Your task to perform on an android device: Clear the cart on walmart.com. Search for logitech g pro on walmart.com, select the first entry, and add it to the cart. Image 0: 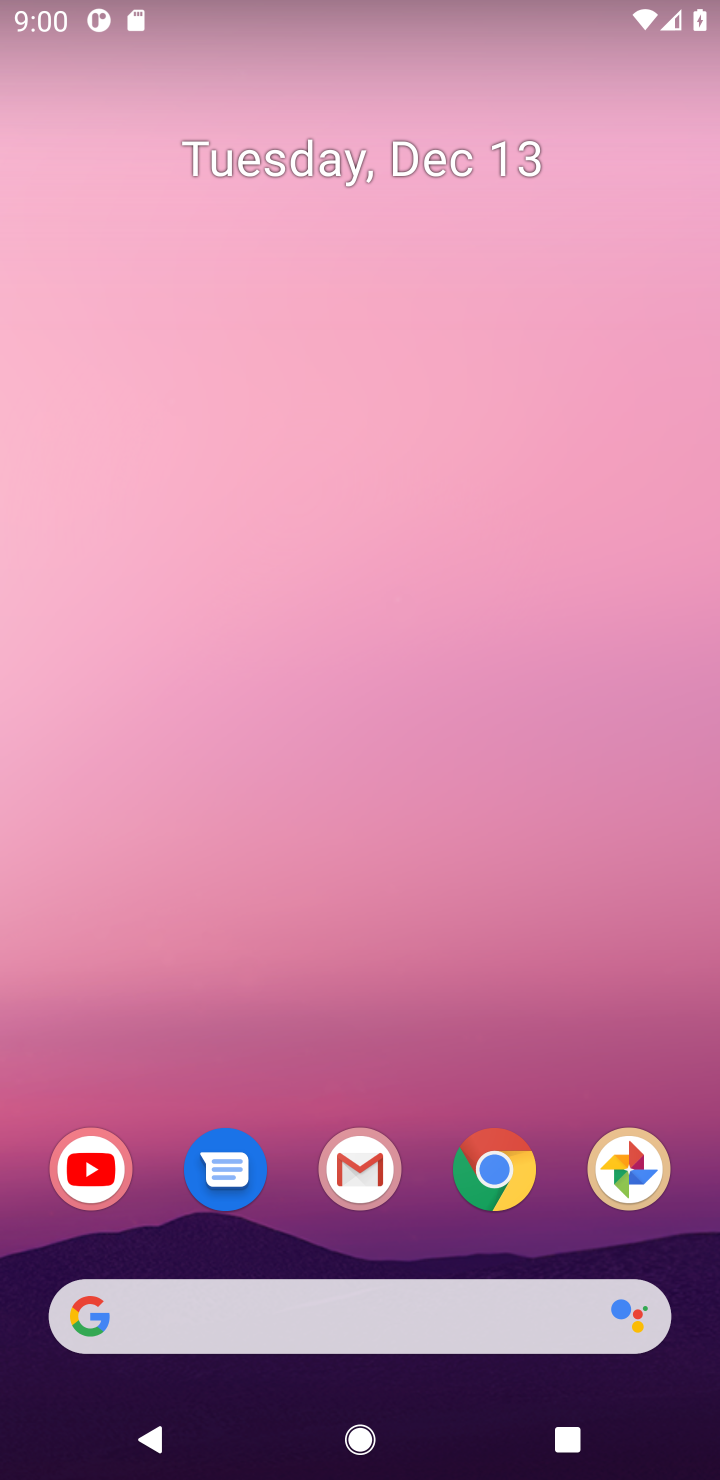
Step 0: click (517, 1144)
Your task to perform on an android device: Clear the cart on walmart.com. Search for logitech g pro on walmart.com, select the first entry, and add it to the cart. Image 1: 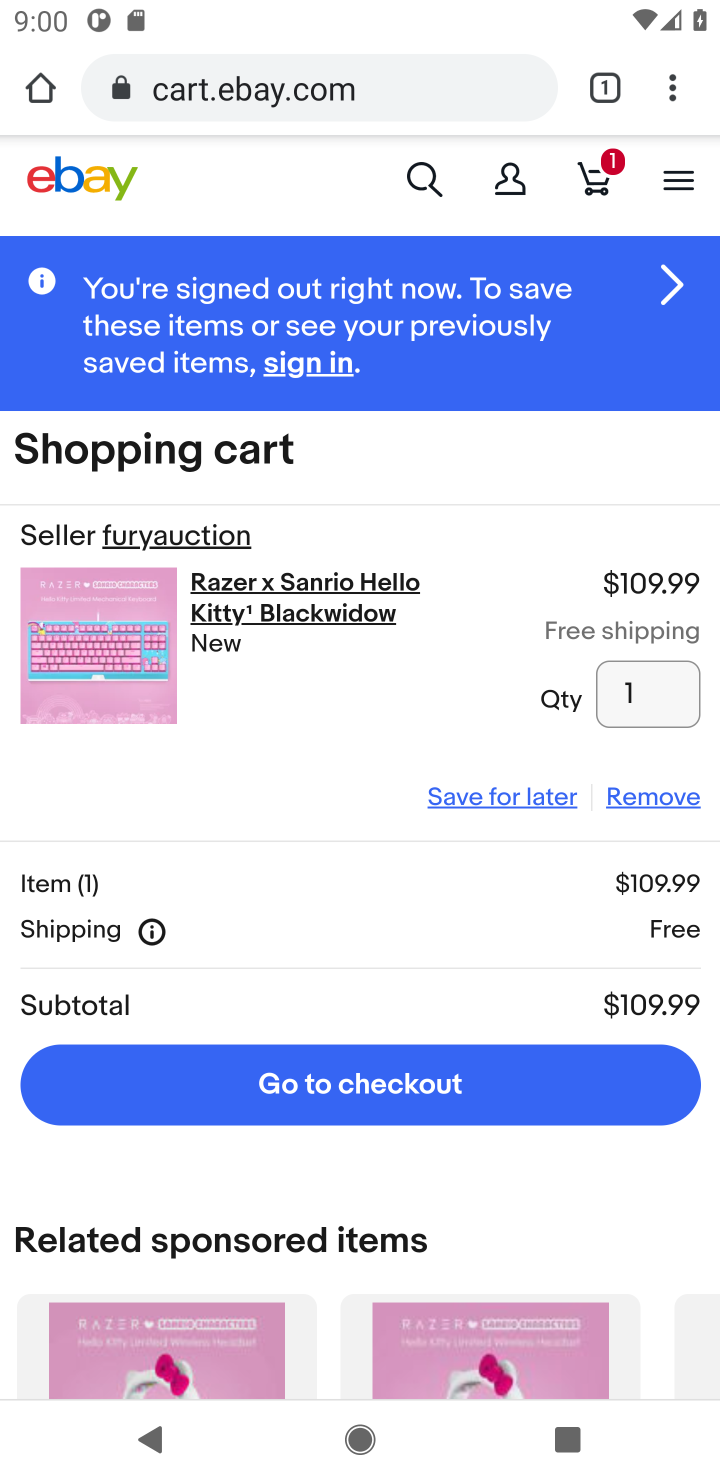
Step 1: click (430, 212)
Your task to perform on an android device: Clear the cart on walmart.com. Search for logitech g pro on walmart.com, select the first entry, and add it to the cart. Image 2: 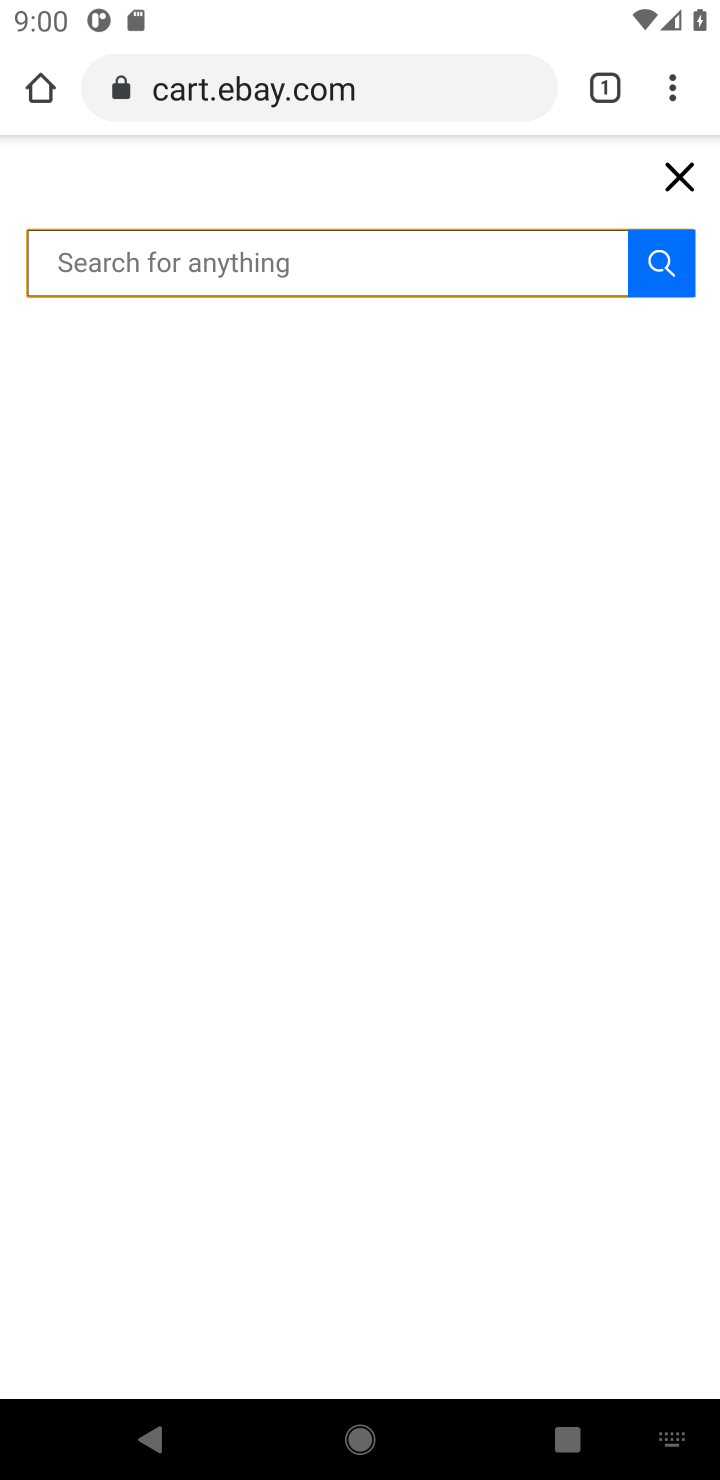
Step 2: type "walmart"
Your task to perform on an android device: Clear the cart on walmart.com. Search for logitech g pro on walmart.com, select the first entry, and add it to the cart. Image 3: 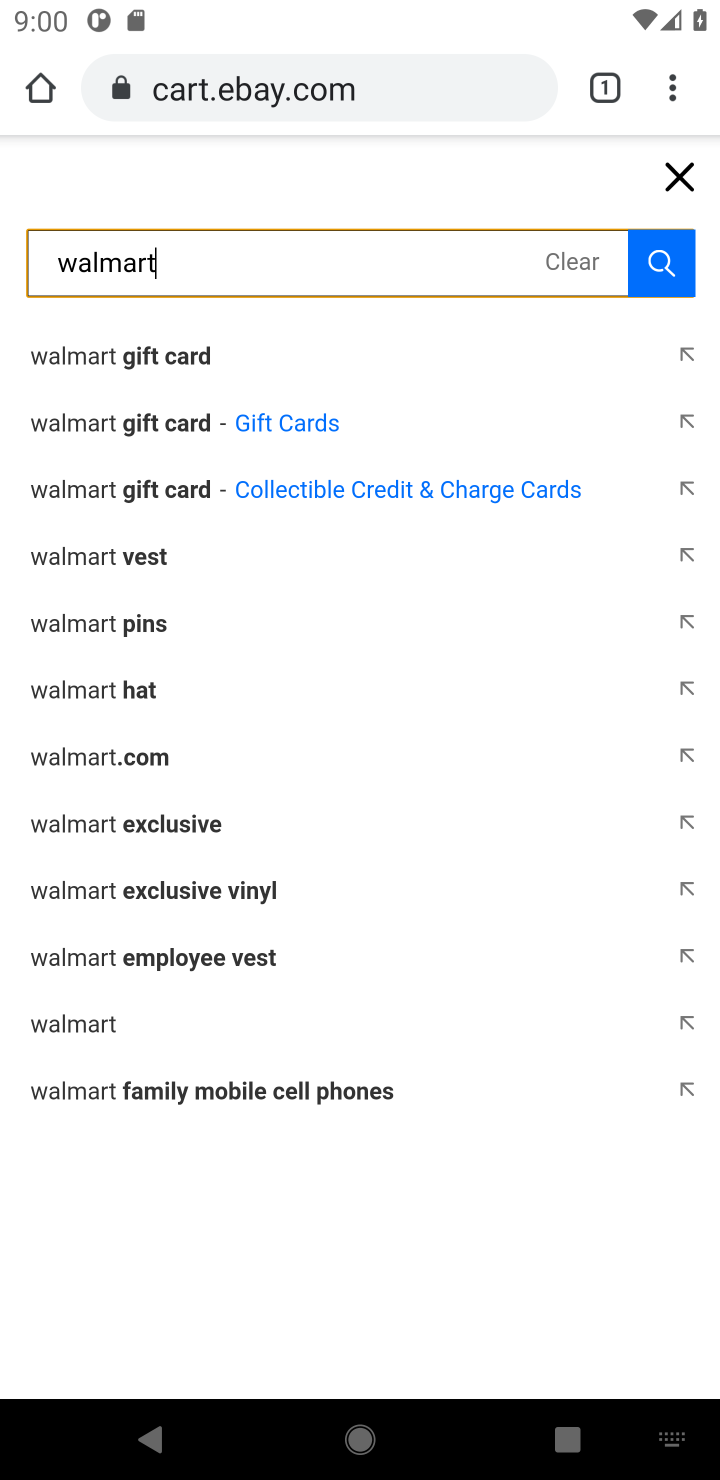
Step 3: click (454, 89)
Your task to perform on an android device: Clear the cart on walmart.com. Search for logitech g pro on walmart.com, select the first entry, and add it to the cart. Image 4: 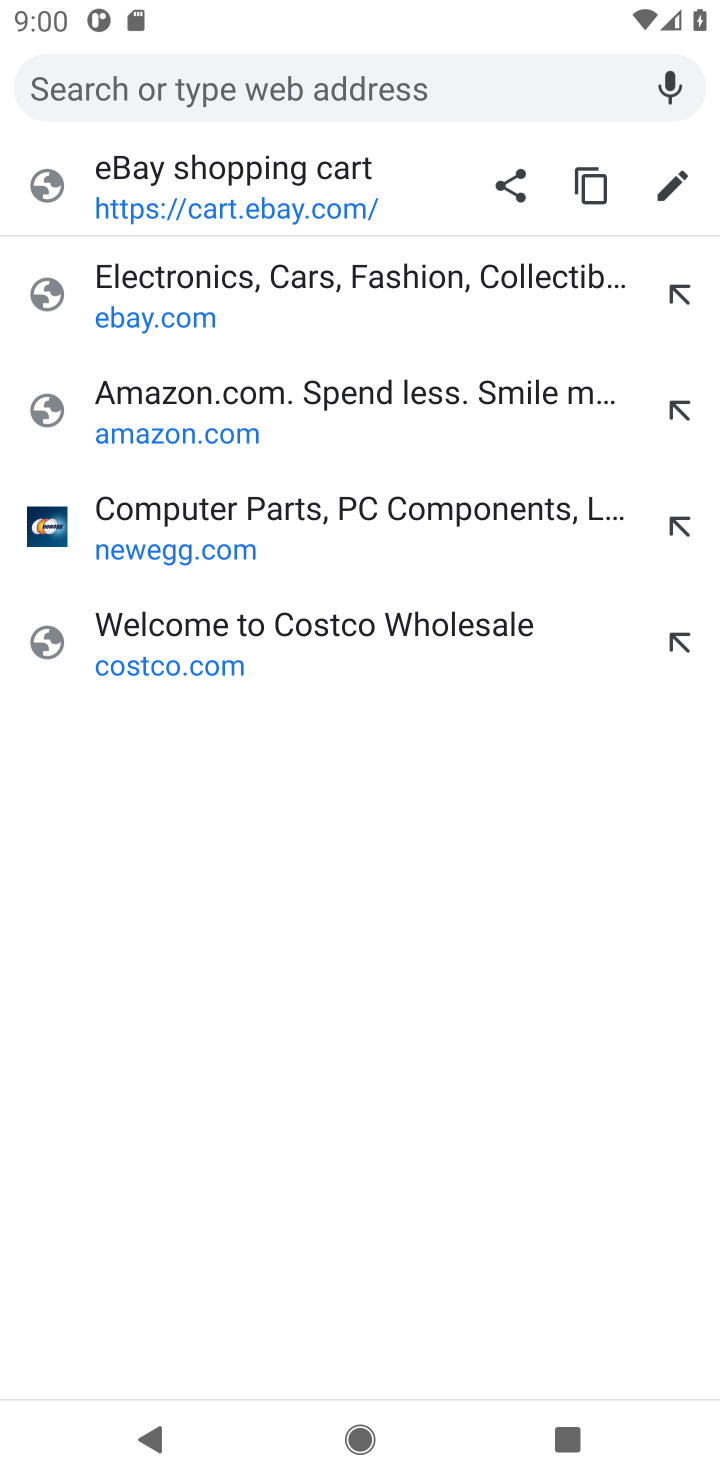
Step 4: type "walmart"
Your task to perform on an android device: Clear the cart on walmart.com. Search for logitech g pro on walmart.com, select the first entry, and add it to the cart. Image 5: 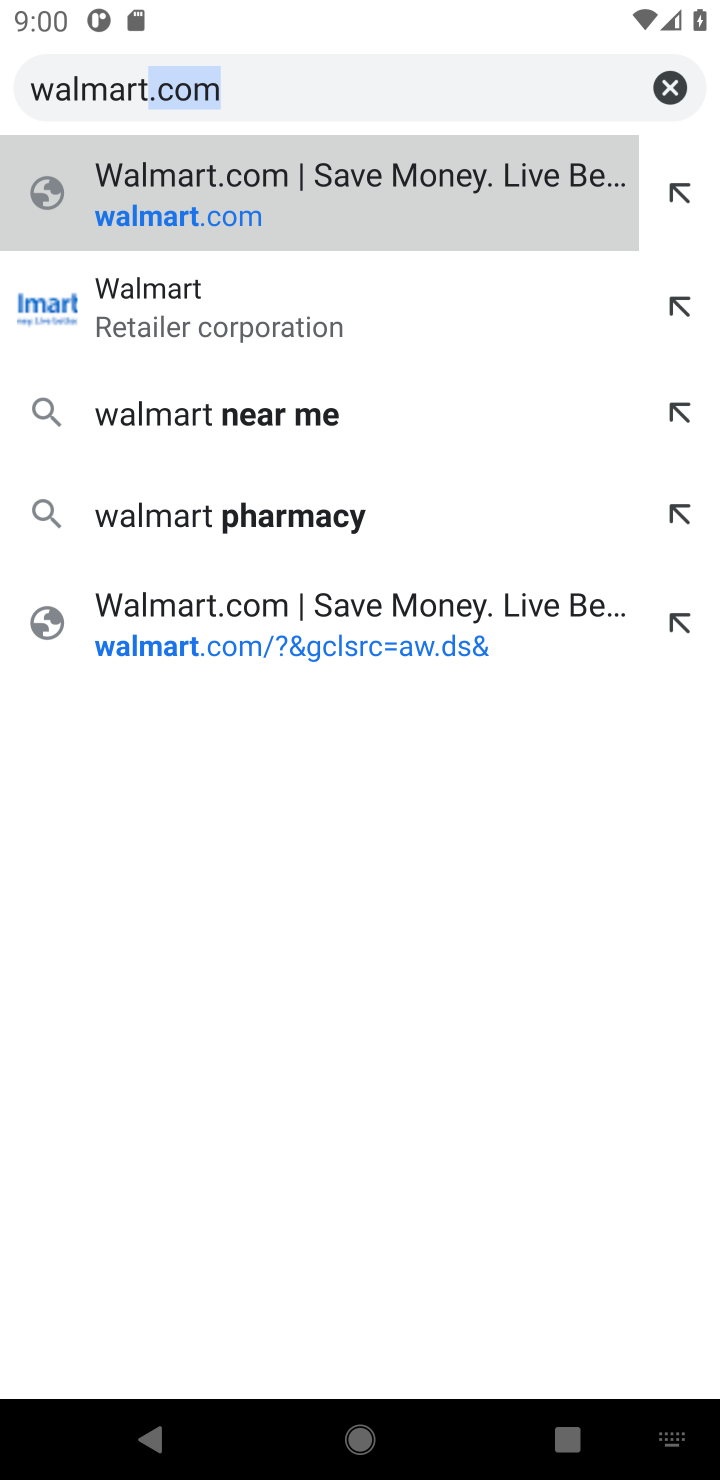
Step 5: click (240, 182)
Your task to perform on an android device: Clear the cart on walmart.com. Search for logitech g pro on walmart.com, select the first entry, and add it to the cart. Image 6: 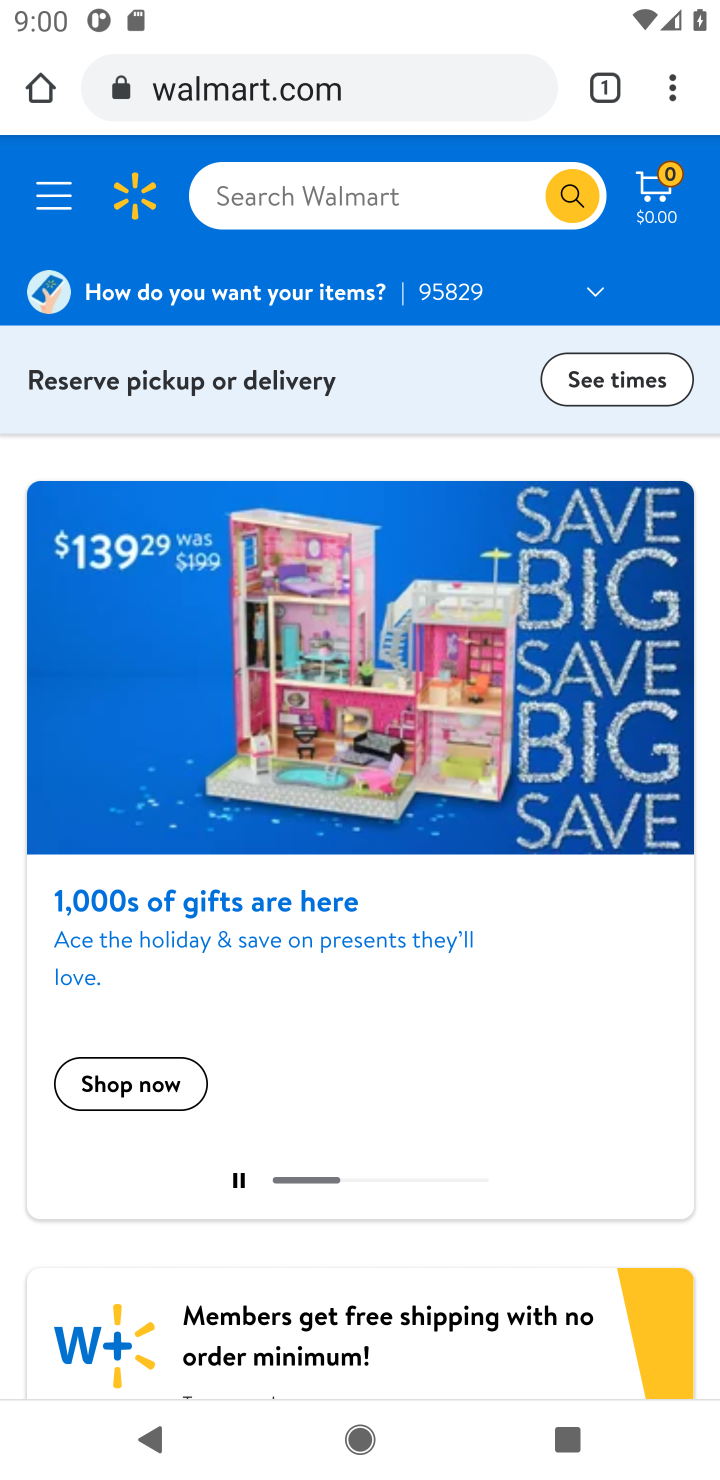
Step 6: click (325, 212)
Your task to perform on an android device: Clear the cart on walmart.com. Search for logitech g pro on walmart.com, select the first entry, and add it to the cart. Image 7: 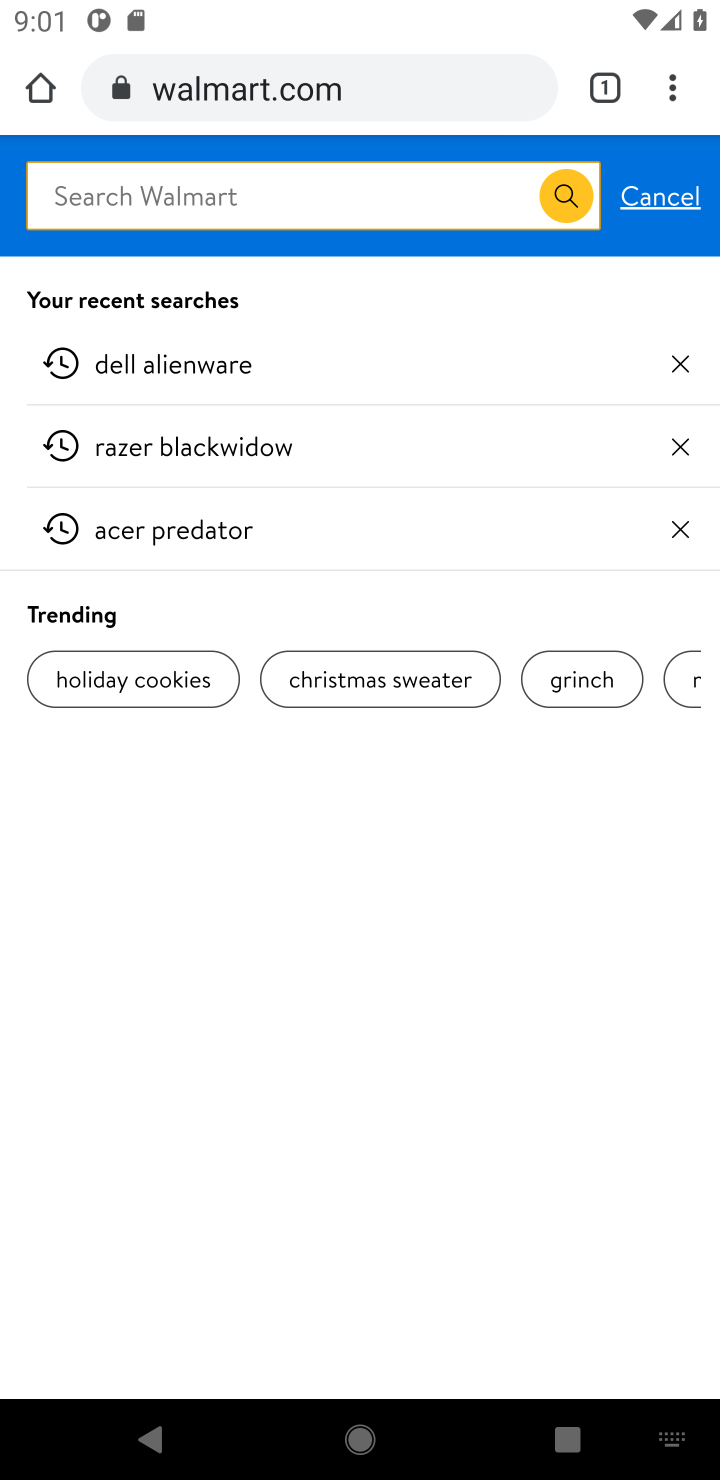
Step 7: type "logitech gpro"
Your task to perform on an android device: Clear the cart on walmart.com. Search for logitech g pro on walmart.com, select the first entry, and add it to the cart. Image 8: 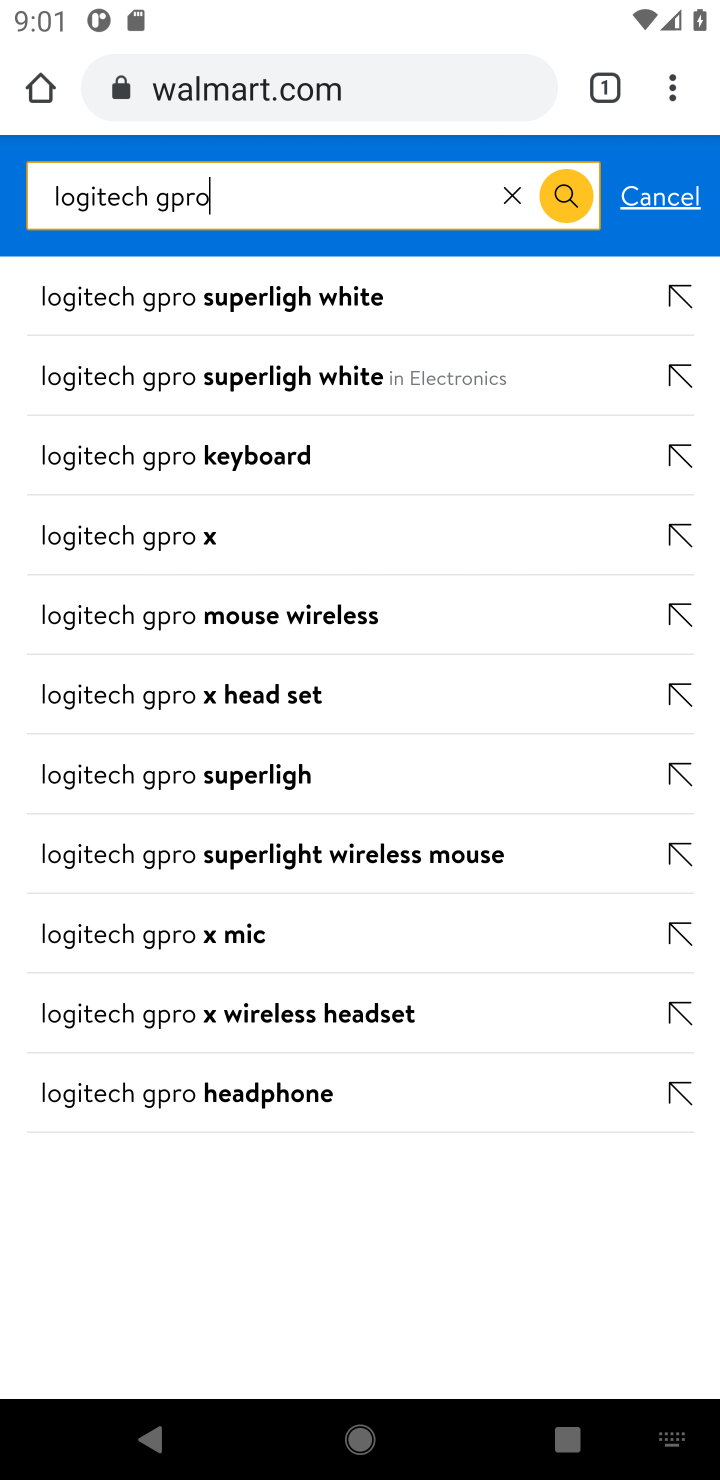
Step 8: click (565, 200)
Your task to perform on an android device: Clear the cart on walmart.com. Search for logitech g pro on walmart.com, select the first entry, and add it to the cart. Image 9: 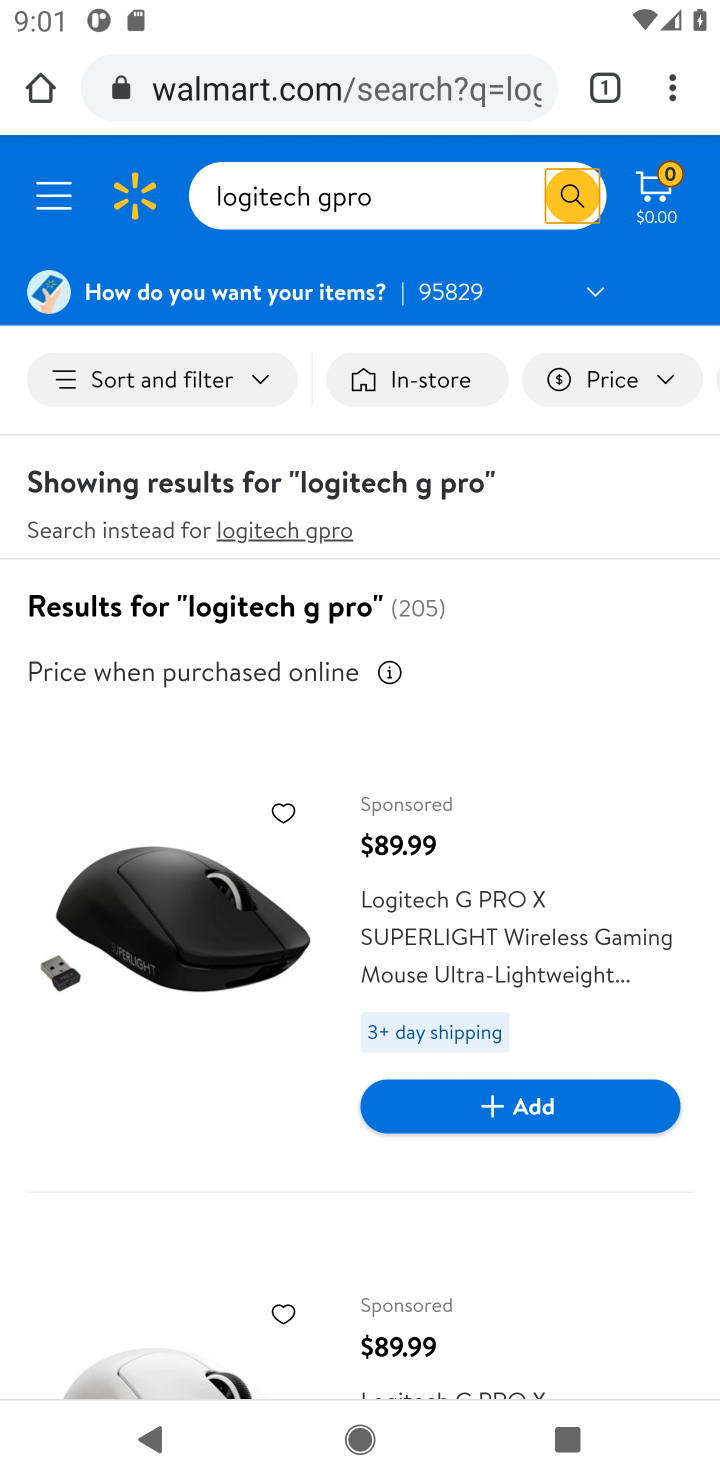
Step 9: click (468, 1083)
Your task to perform on an android device: Clear the cart on walmart.com. Search for logitech g pro on walmart.com, select the first entry, and add it to the cart. Image 10: 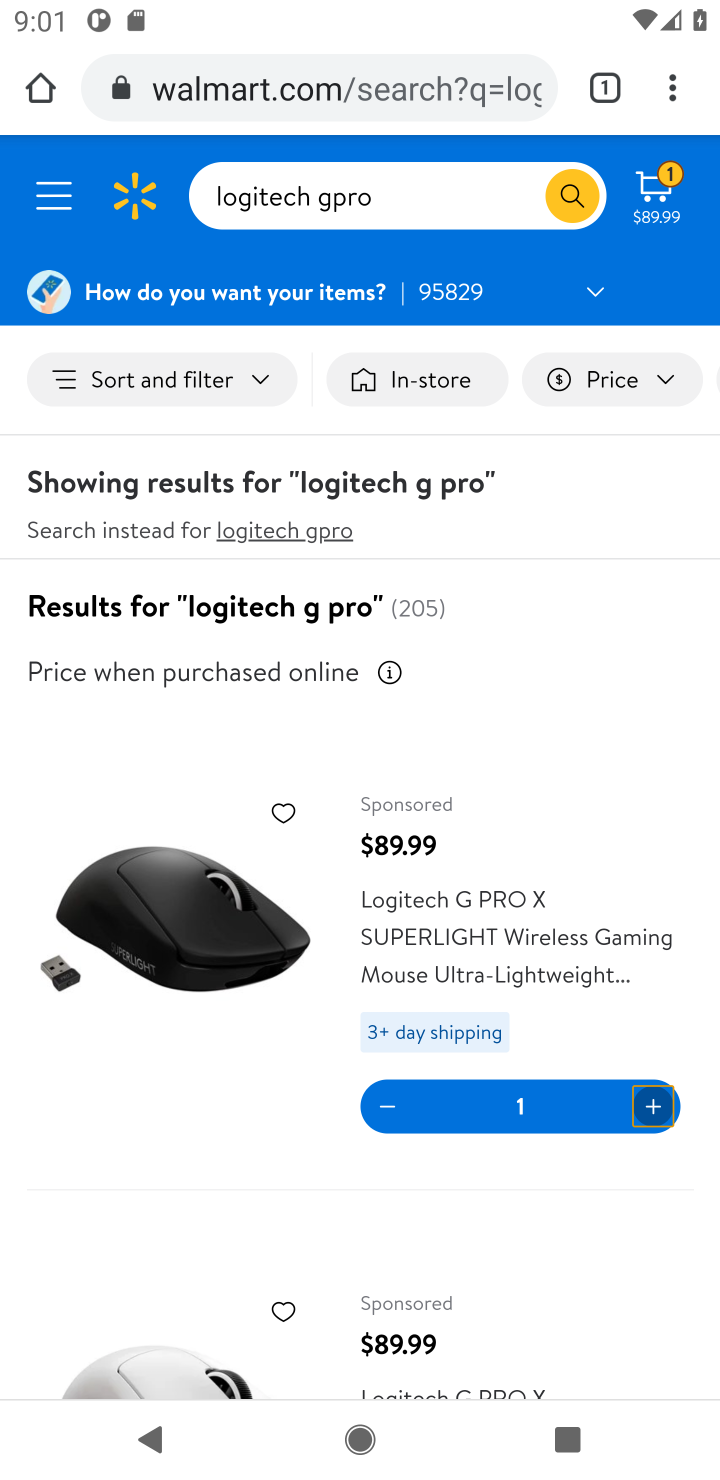
Step 10: task complete